Your task to perform on an android device: turn pop-ups on in chrome Image 0: 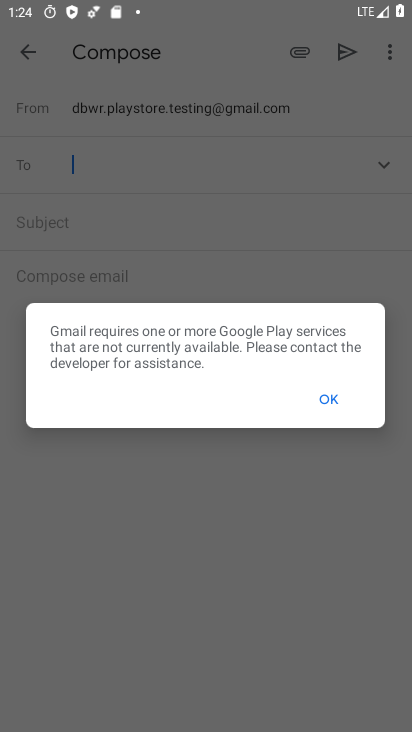
Step 0: drag from (263, 601) to (284, 337)
Your task to perform on an android device: turn pop-ups on in chrome Image 1: 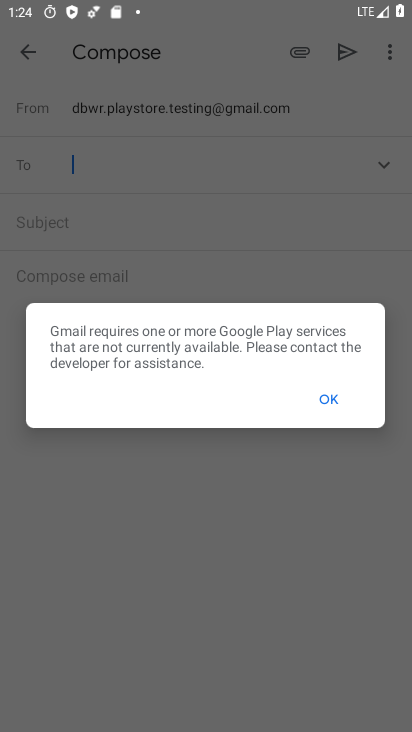
Step 1: press home button
Your task to perform on an android device: turn pop-ups on in chrome Image 2: 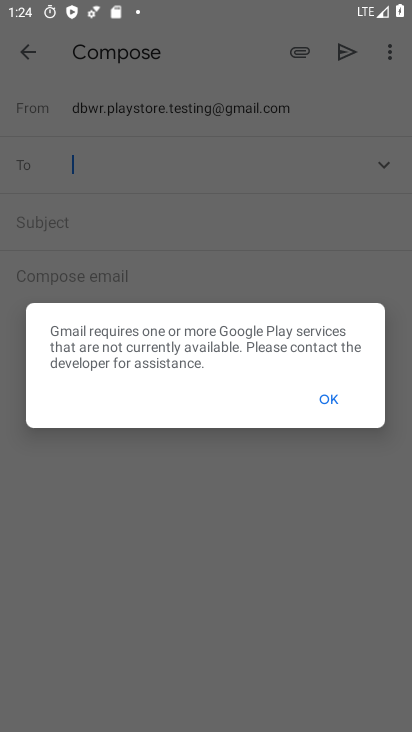
Step 2: press home button
Your task to perform on an android device: turn pop-ups on in chrome Image 3: 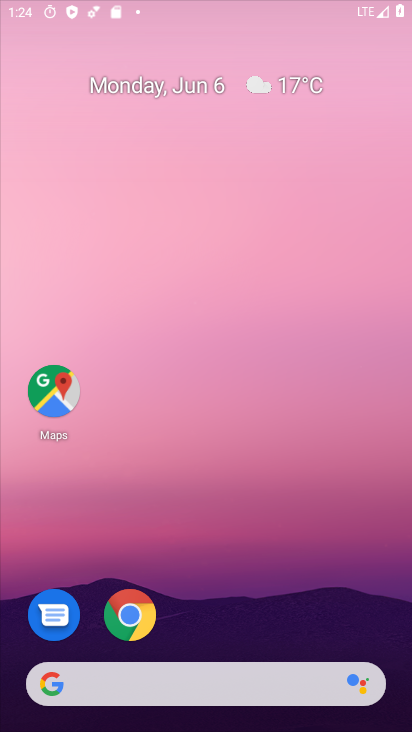
Step 3: click (201, 254)
Your task to perform on an android device: turn pop-ups on in chrome Image 4: 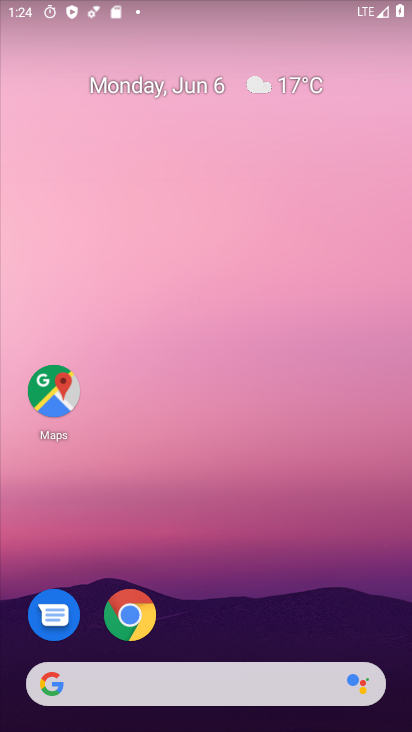
Step 4: drag from (198, 631) to (250, 73)
Your task to perform on an android device: turn pop-ups on in chrome Image 5: 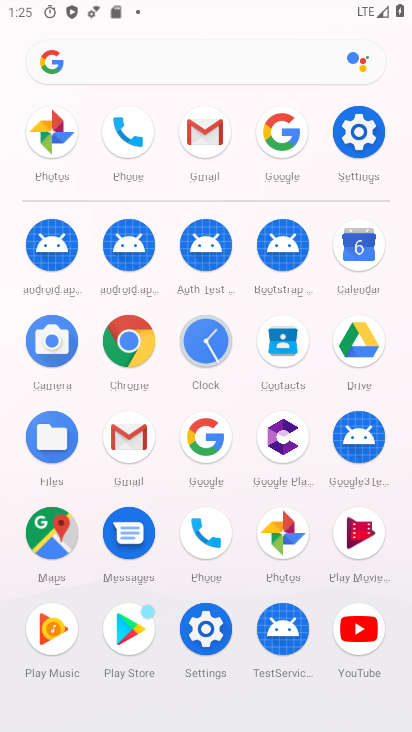
Step 5: click (126, 345)
Your task to perform on an android device: turn pop-ups on in chrome Image 6: 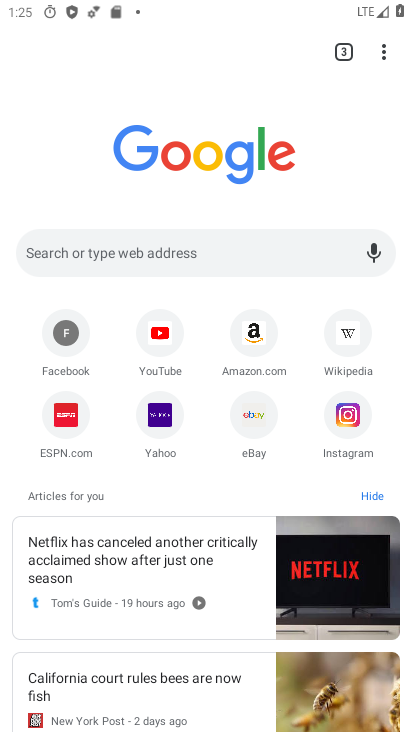
Step 6: drag from (209, 488) to (232, 210)
Your task to perform on an android device: turn pop-ups on in chrome Image 7: 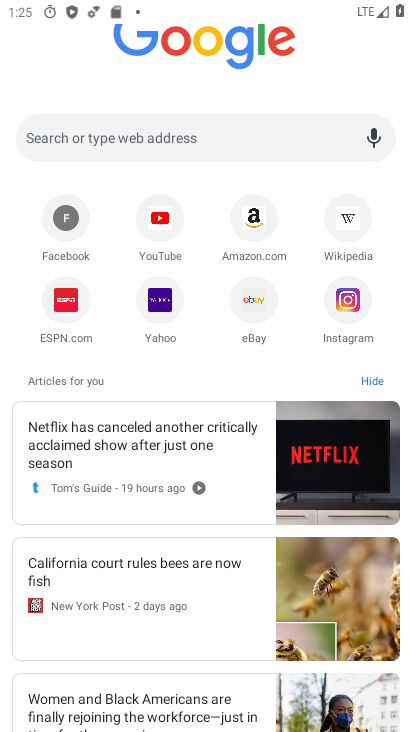
Step 7: drag from (198, 211) to (171, 533)
Your task to perform on an android device: turn pop-ups on in chrome Image 8: 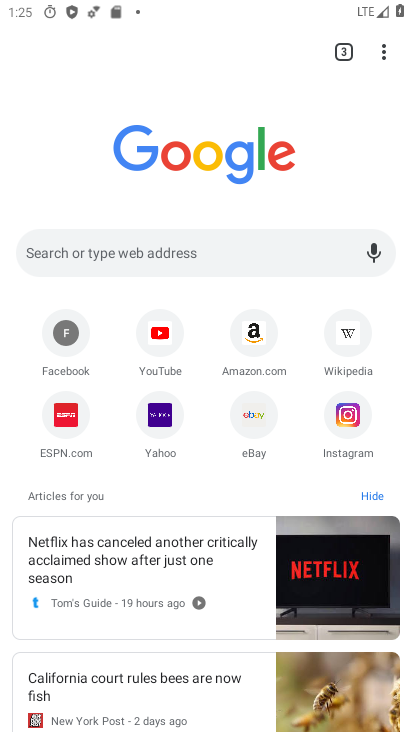
Step 8: click (379, 47)
Your task to perform on an android device: turn pop-ups on in chrome Image 9: 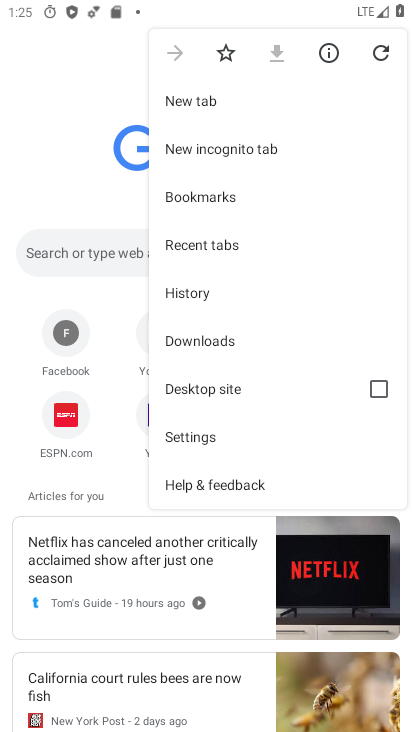
Step 9: drag from (261, 437) to (311, 105)
Your task to perform on an android device: turn pop-ups on in chrome Image 10: 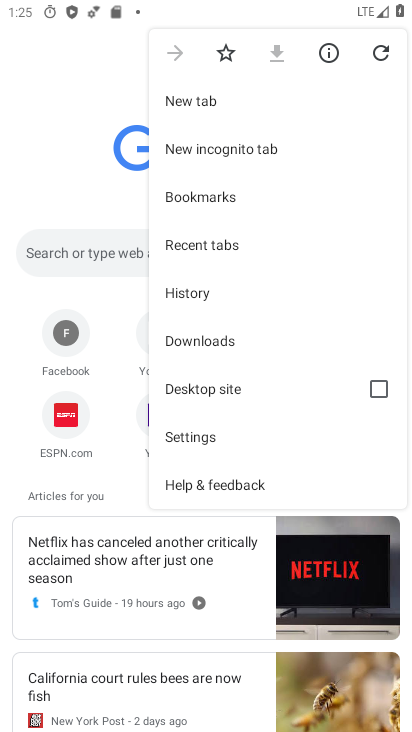
Step 10: click (219, 432)
Your task to perform on an android device: turn pop-ups on in chrome Image 11: 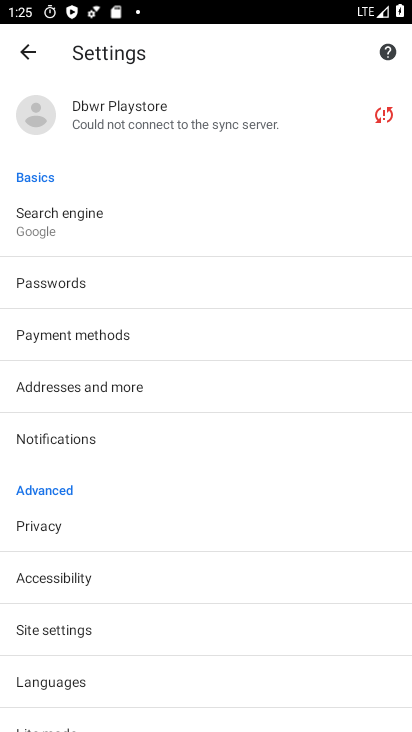
Step 11: drag from (214, 517) to (251, 254)
Your task to perform on an android device: turn pop-ups on in chrome Image 12: 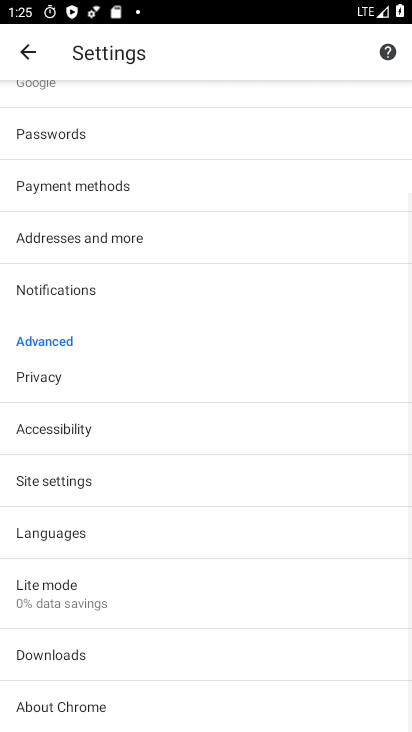
Step 12: click (77, 477)
Your task to perform on an android device: turn pop-ups on in chrome Image 13: 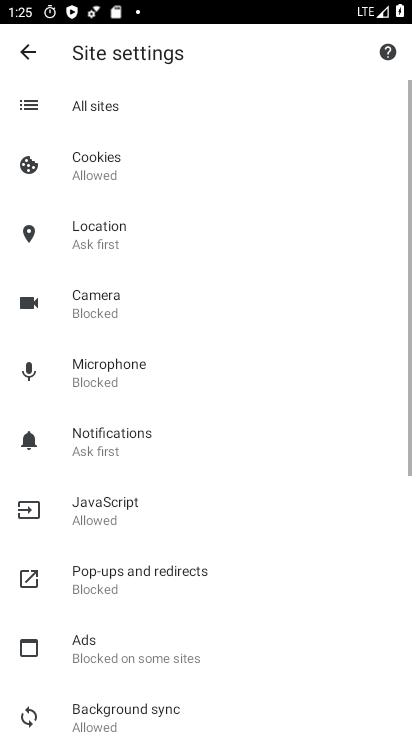
Step 13: drag from (173, 565) to (220, 333)
Your task to perform on an android device: turn pop-ups on in chrome Image 14: 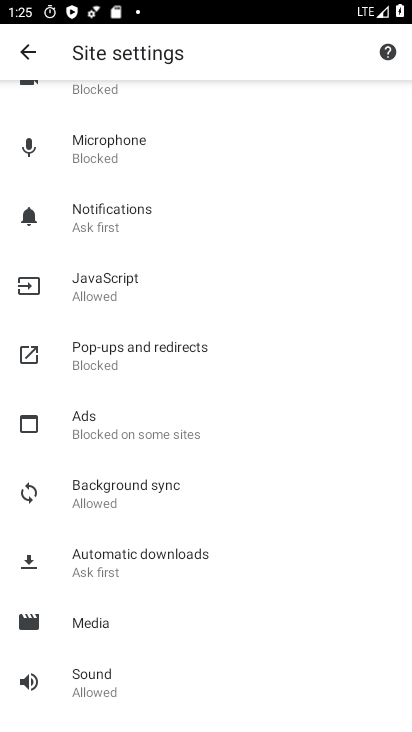
Step 14: click (132, 348)
Your task to perform on an android device: turn pop-ups on in chrome Image 15: 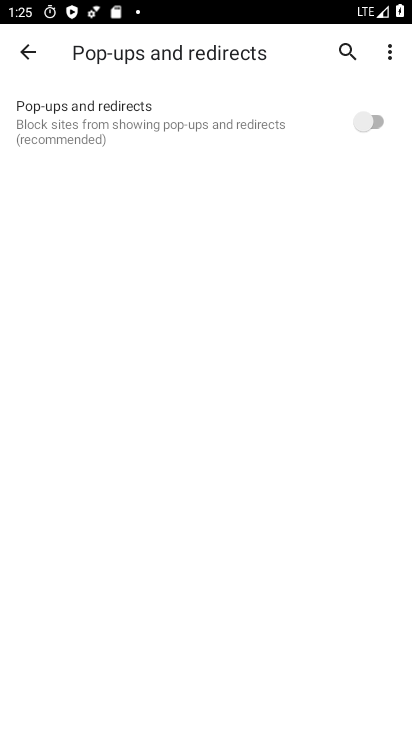
Step 15: drag from (264, 409) to (263, 294)
Your task to perform on an android device: turn pop-ups on in chrome Image 16: 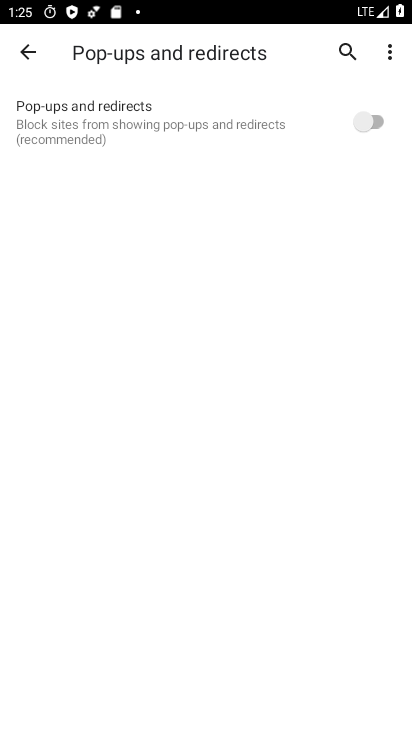
Step 16: drag from (322, 569) to (276, 312)
Your task to perform on an android device: turn pop-ups on in chrome Image 17: 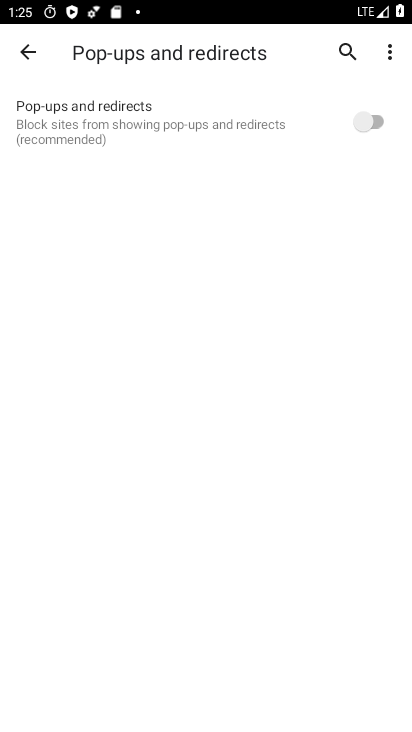
Step 17: drag from (263, 534) to (277, 395)
Your task to perform on an android device: turn pop-ups on in chrome Image 18: 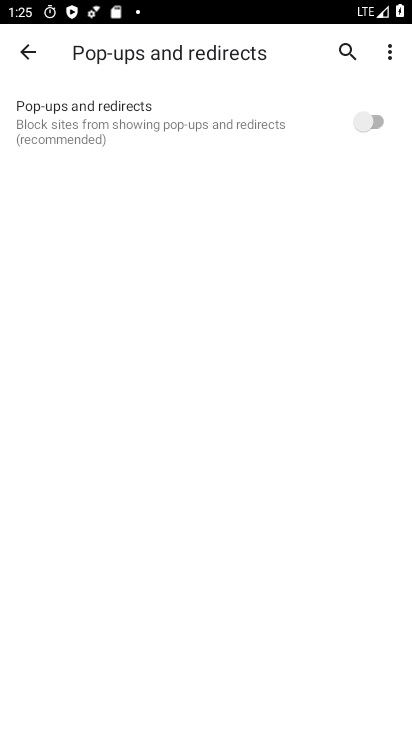
Step 18: drag from (277, 348) to (273, 682)
Your task to perform on an android device: turn pop-ups on in chrome Image 19: 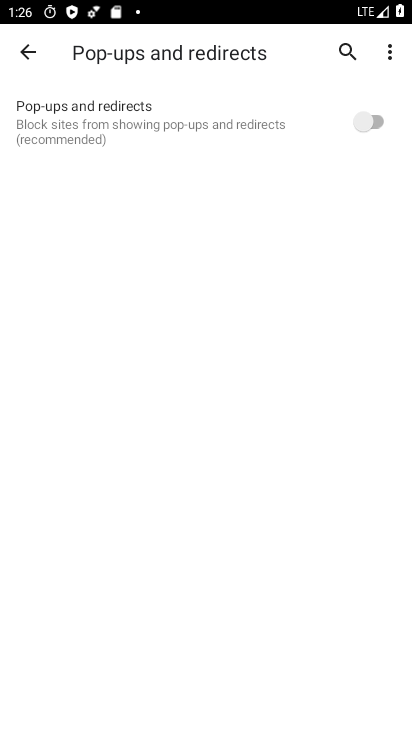
Step 19: click (222, 418)
Your task to perform on an android device: turn pop-ups on in chrome Image 20: 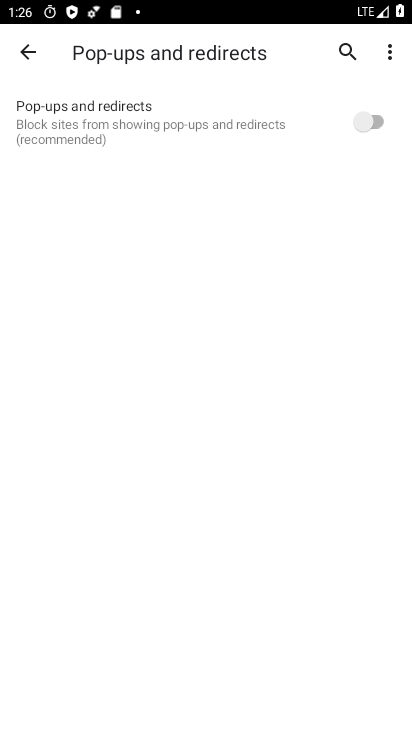
Step 20: click (356, 108)
Your task to perform on an android device: turn pop-ups on in chrome Image 21: 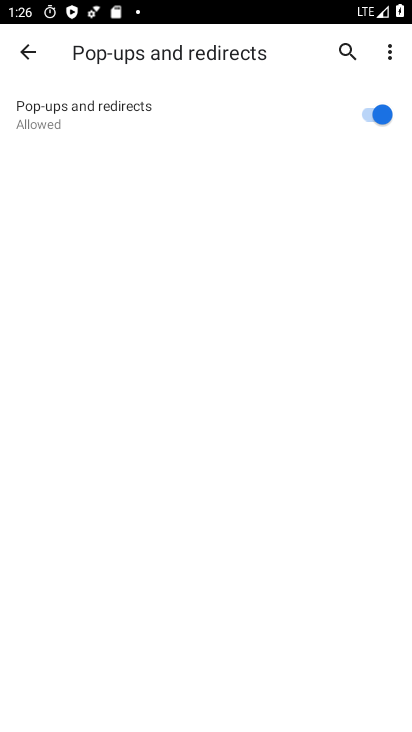
Step 21: task complete